Your task to perform on an android device: install app "Spotify" Image 0: 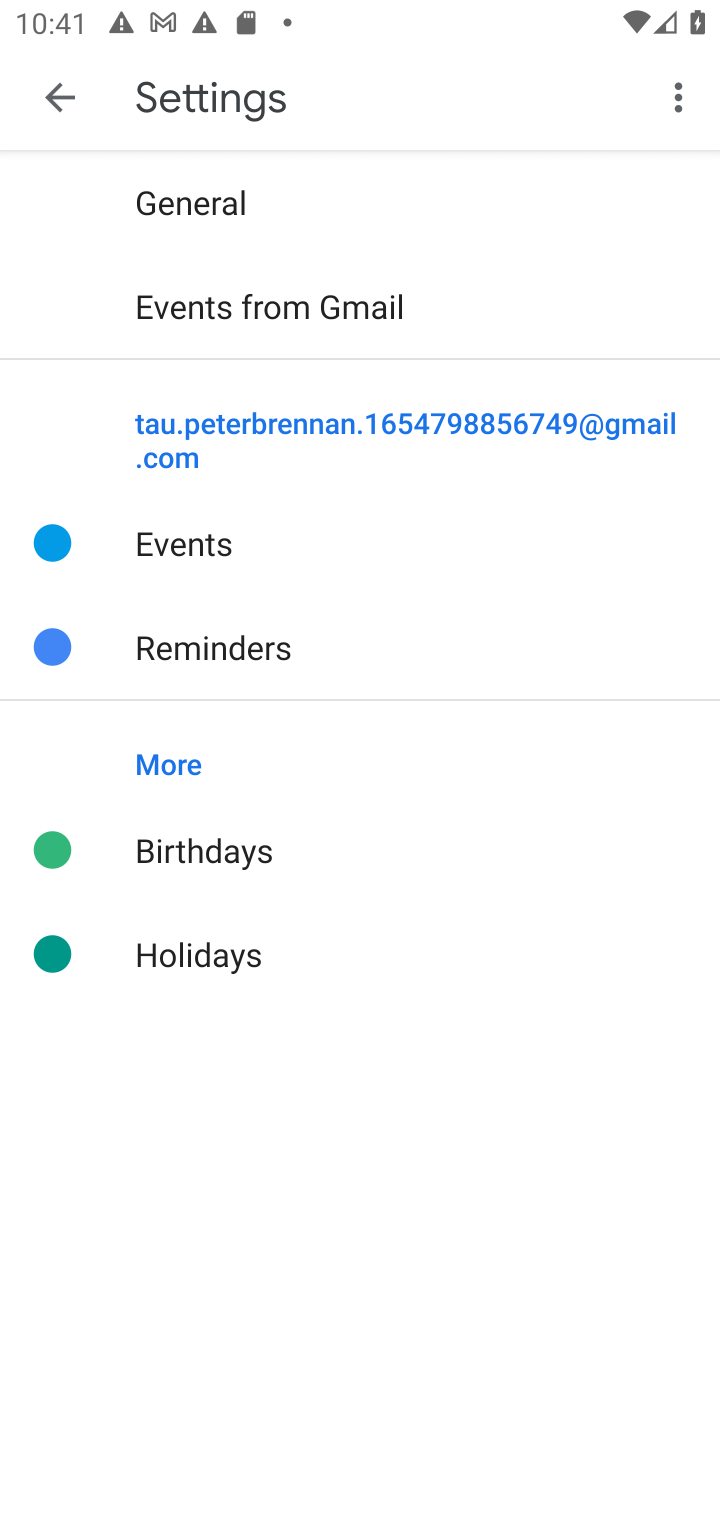
Step 0: press home button
Your task to perform on an android device: install app "Spotify" Image 1: 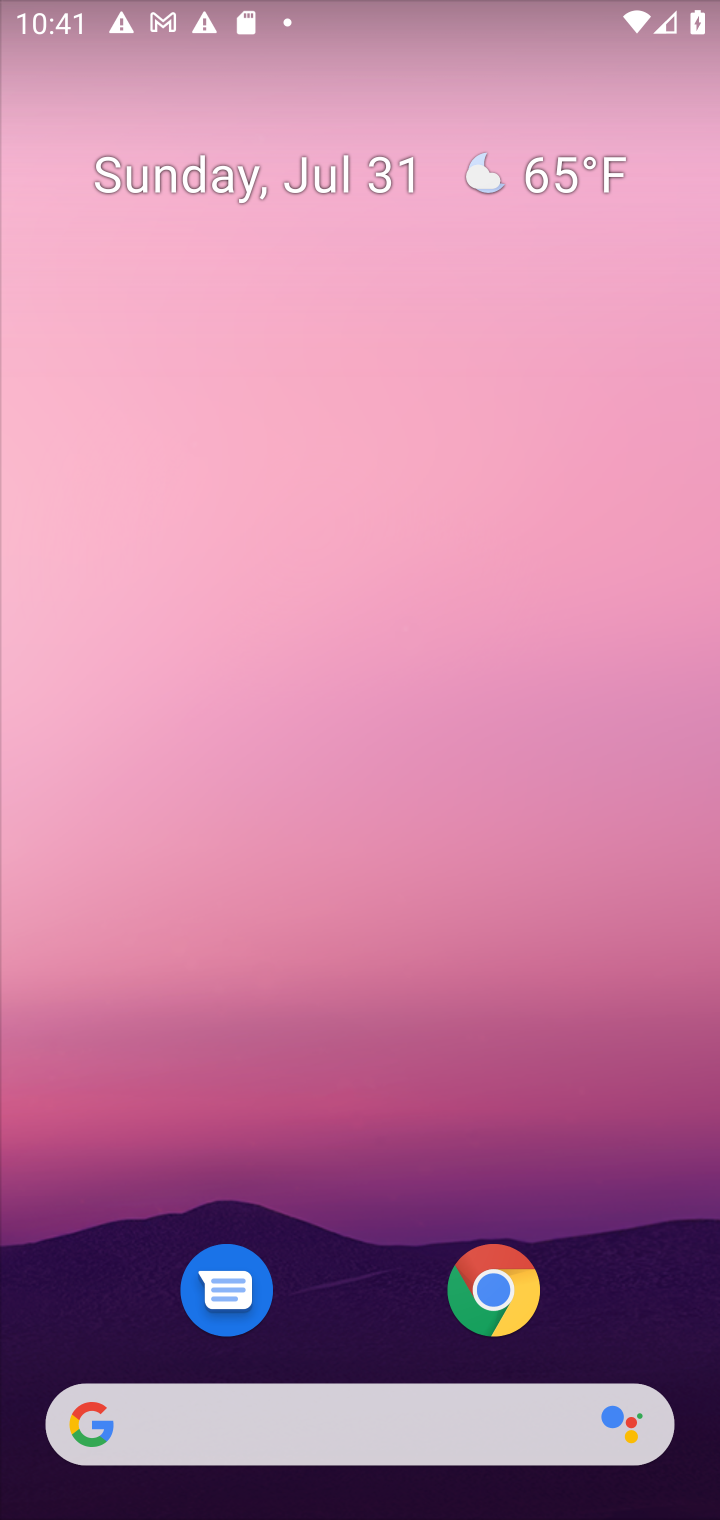
Step 1: drag from (614, 1021) to (512, 144)
Your task to perform on an android device: install app "Spotify" Image 2: 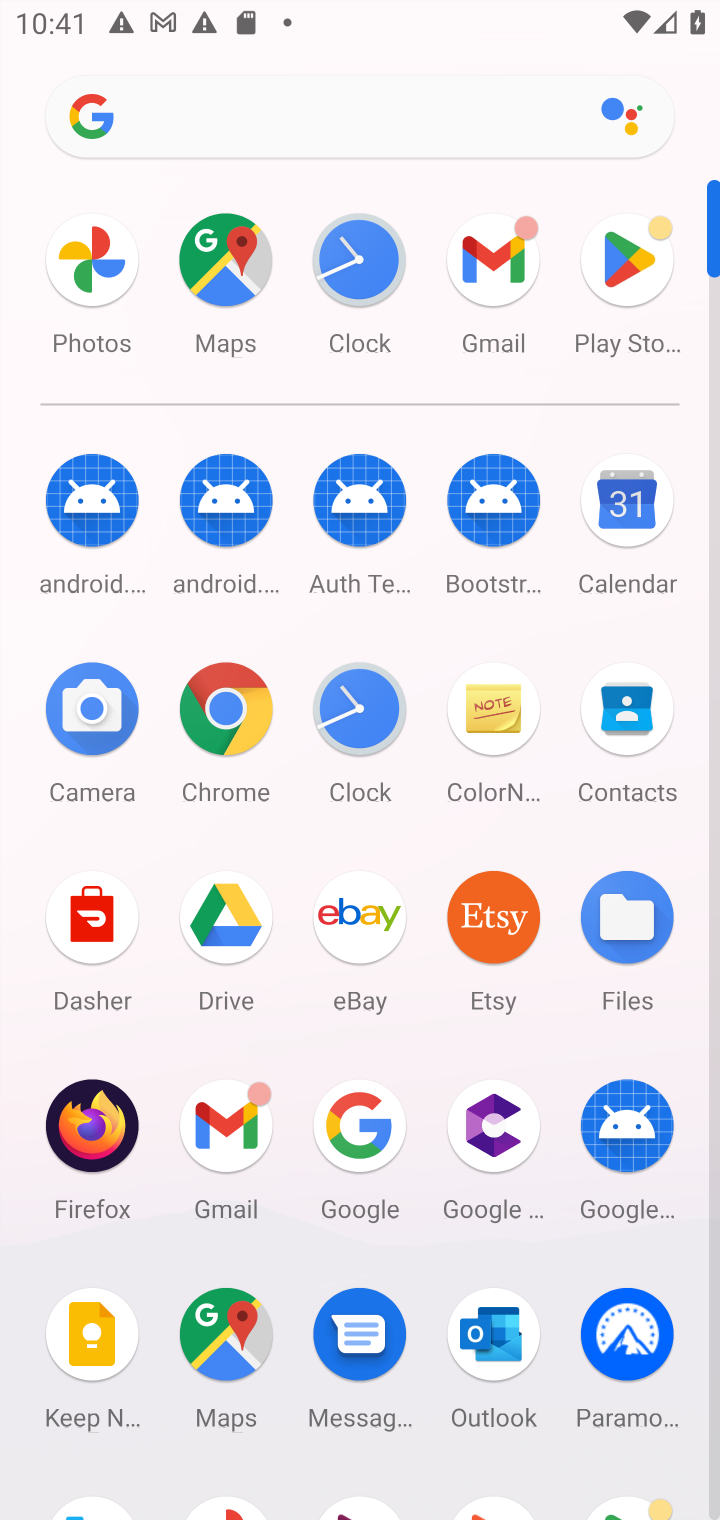
Step 2: click (621, 264)
Your task to perform on an android device: install app "Spotify" Image 3: 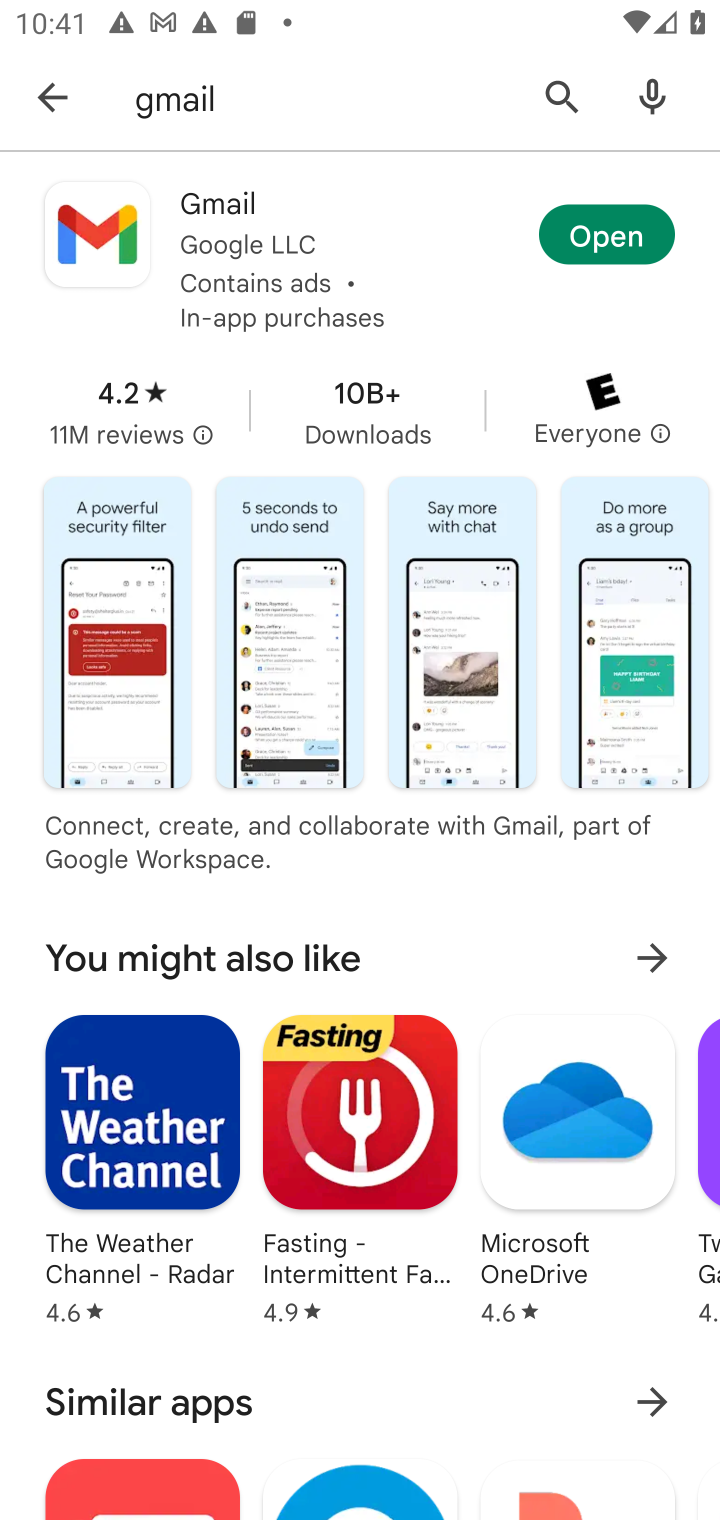
Step 3: click (551, 87)
Your task to perform on an android device: install app "Spotify" Image 4: 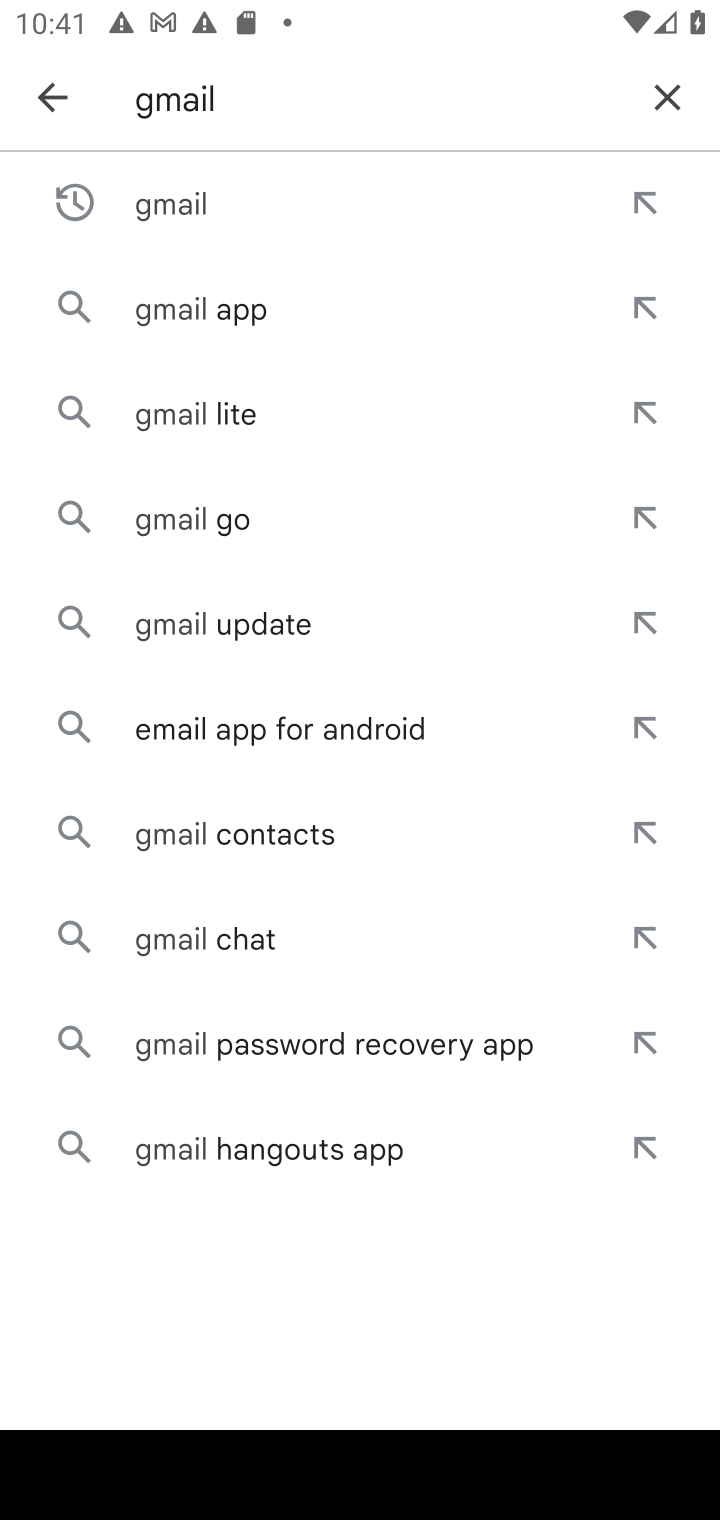
Step 4: click (668, 92)
Your task to perform on an android device: install app "Spotify" Image 5: 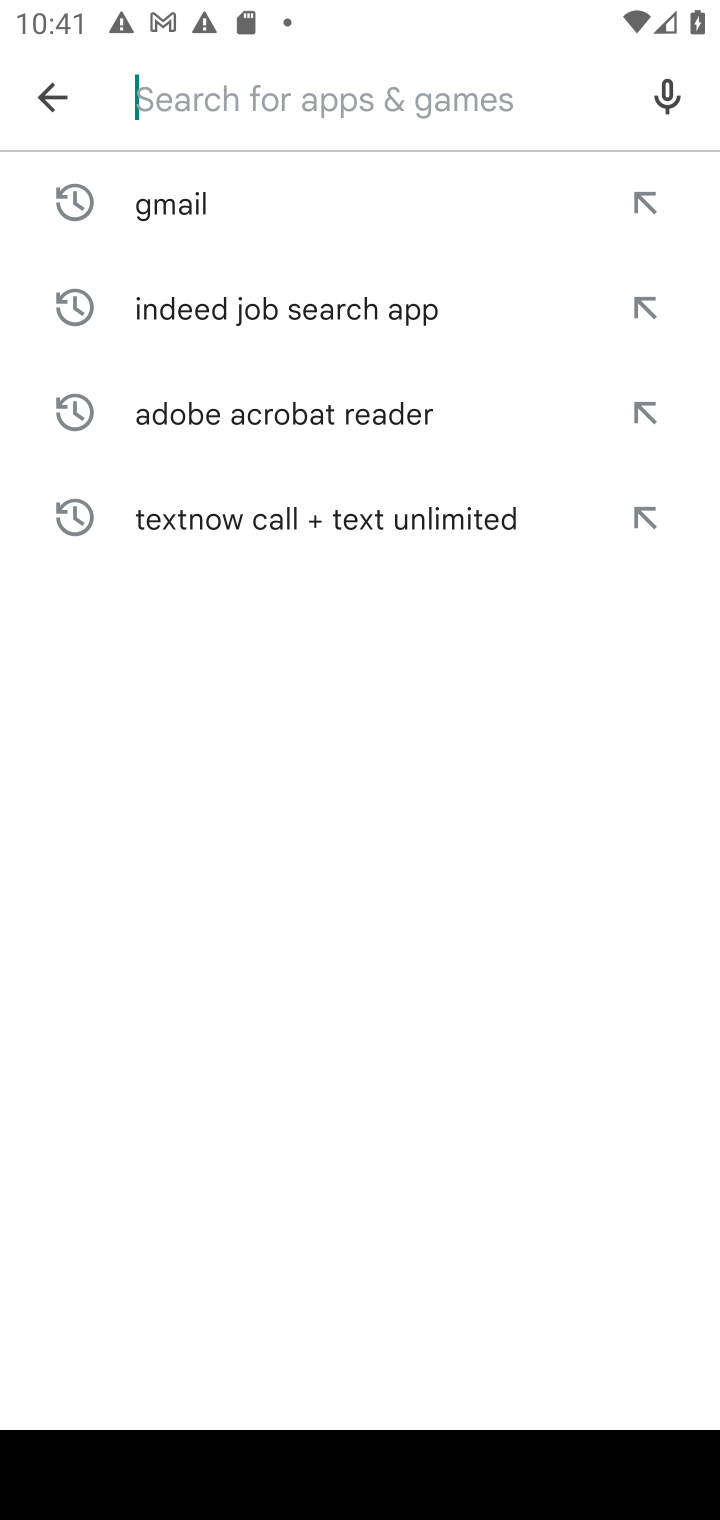
Step 5: click (510, 92)
Your task to perform on an android device: install app "Spotify" Image 6: 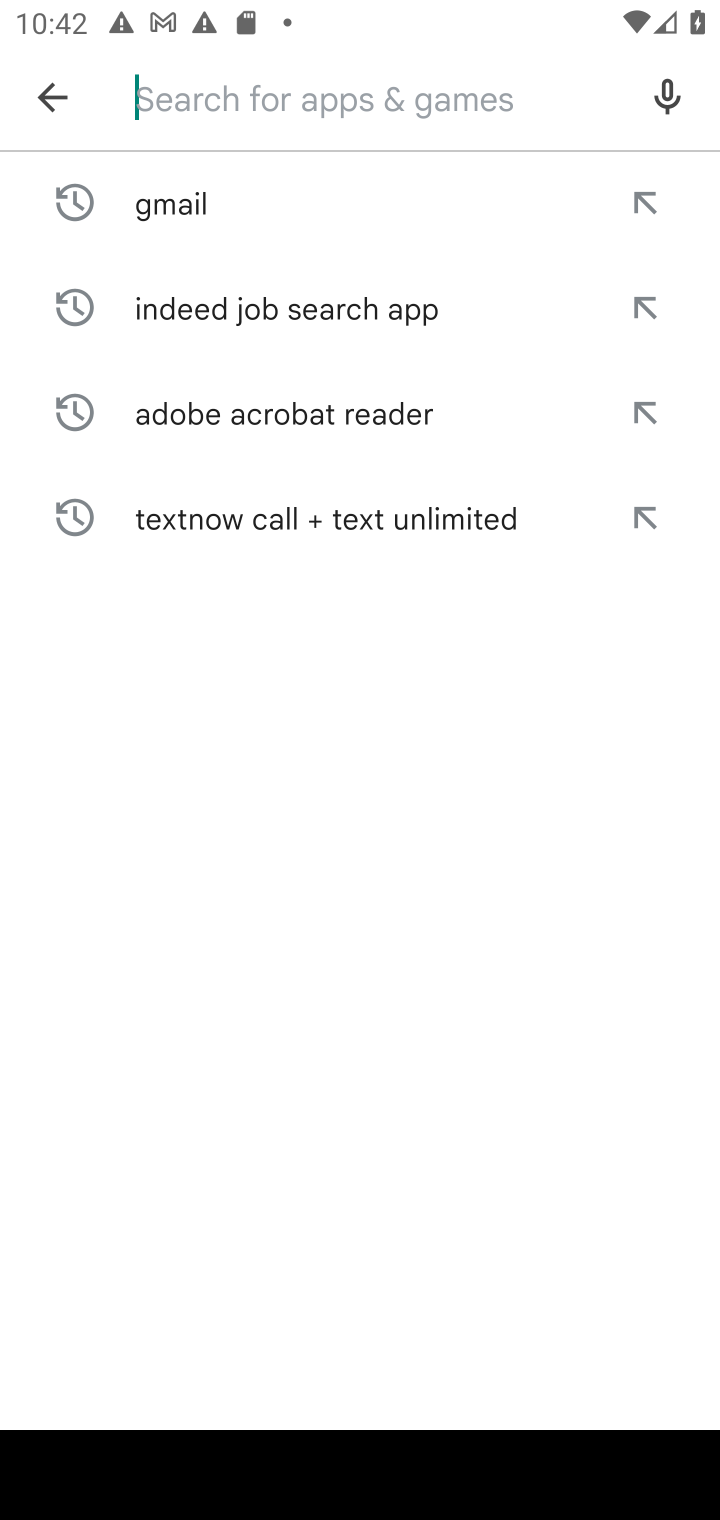
Step 6: type "spotift"
Your task to perform on an android device: install app "Spotify" Image 7: 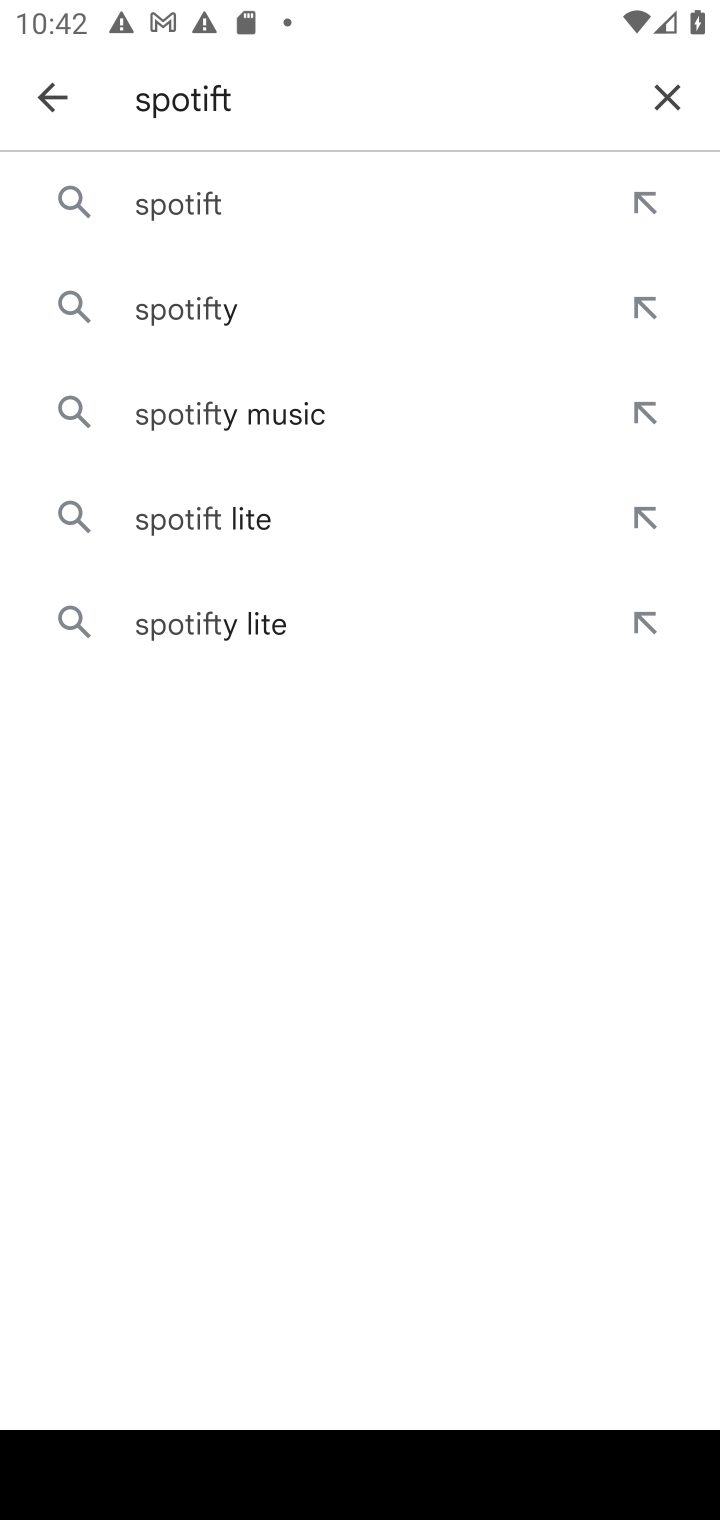
Step 7: click (206, 317)
Your task to perform on an android device: install app "Spotify" Image 8: 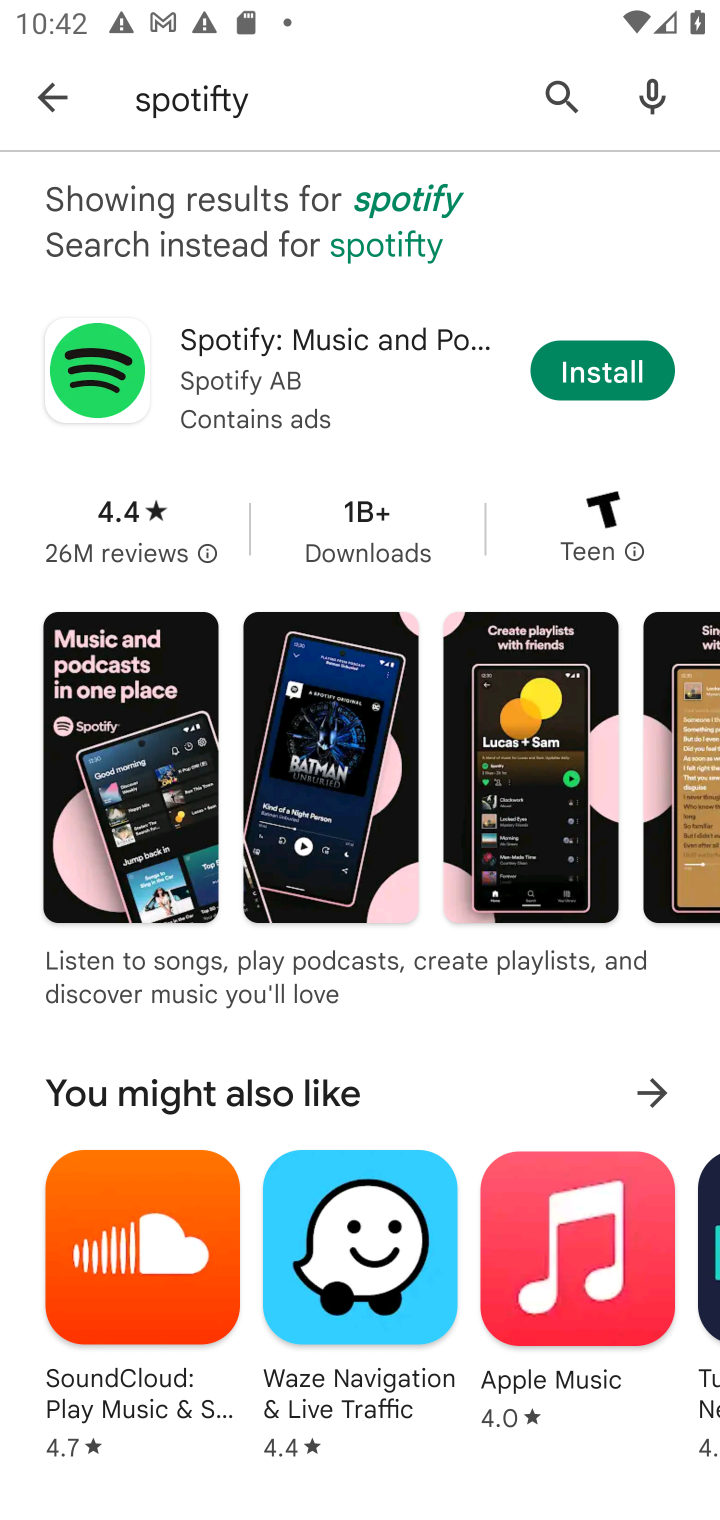
Step 8: click (595, 366)
Your task to perform on an android device: install app "Spotify" Image 9: 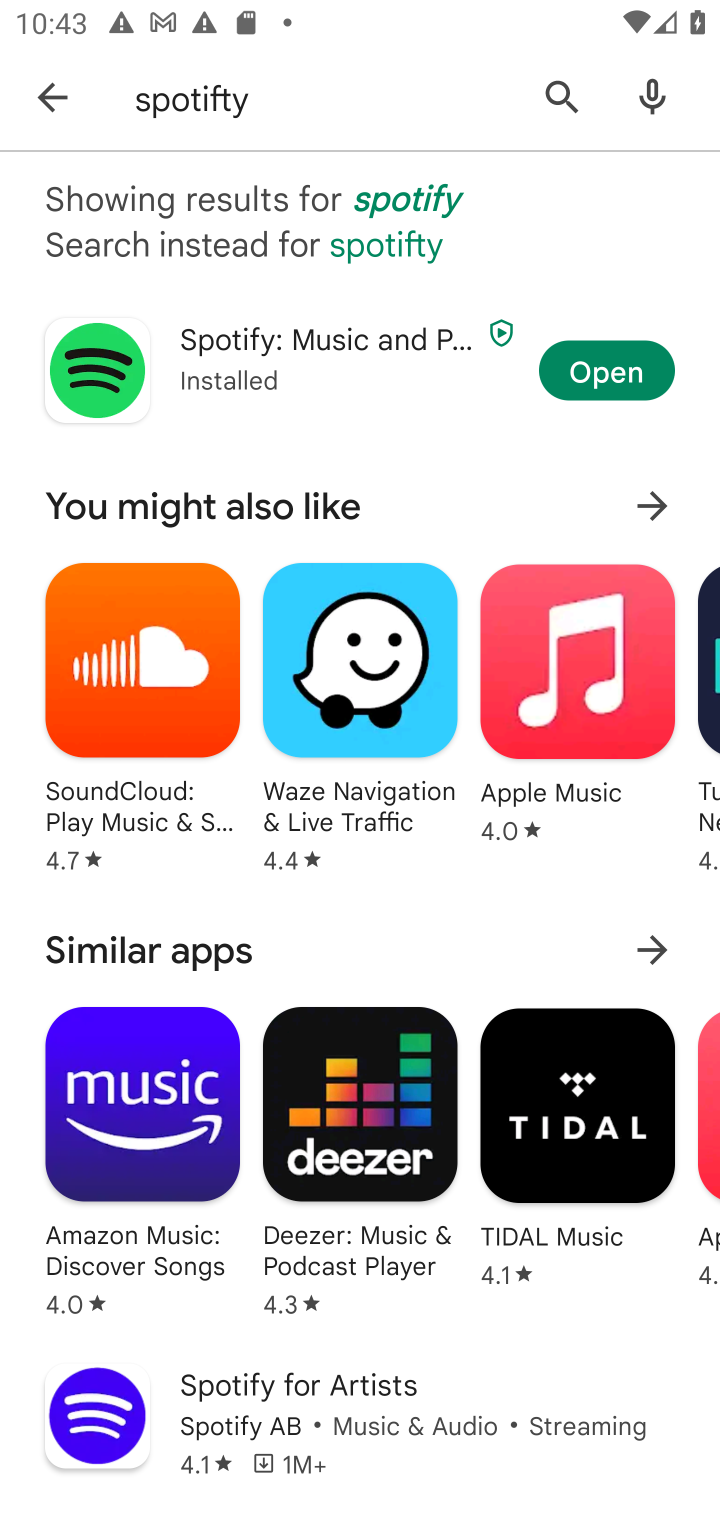
Step 9: task complete